Your task to perform on an android device: choose inbox layout in the gmail app Image 0: 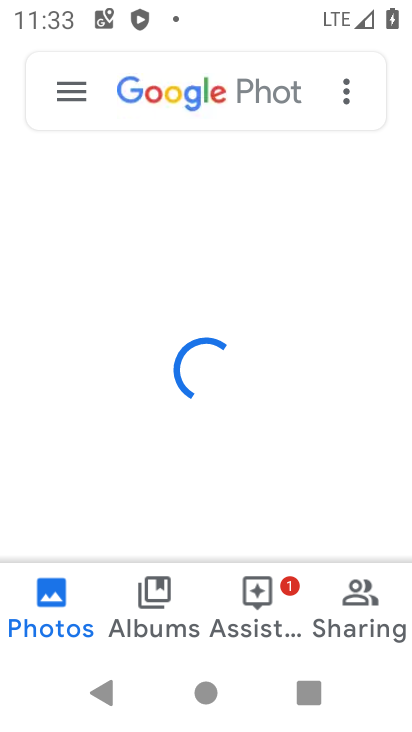
Step 0: press home button
Your task to perform on an android device: choose inbox layout in the gmail app Image 1: 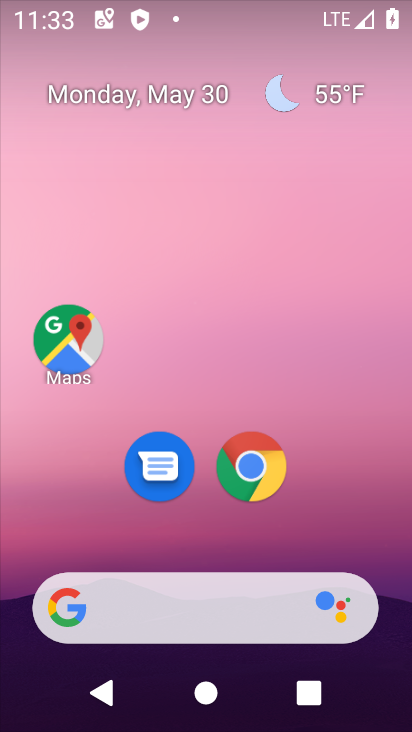
Step 1: drag from (350, 543) to (334, 194)
Your task to perform on an android device: choose inbox layout in the gmail app Image 2: 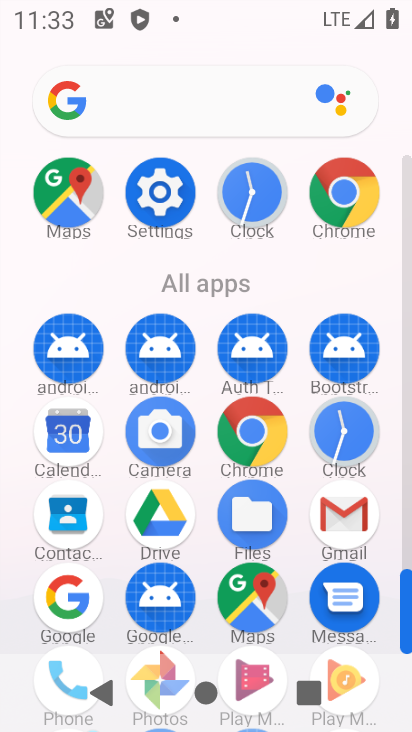
Step 2: click (352, 516)
Your task to perform on an android device: choose inbox layout in the gmail app Image 3: 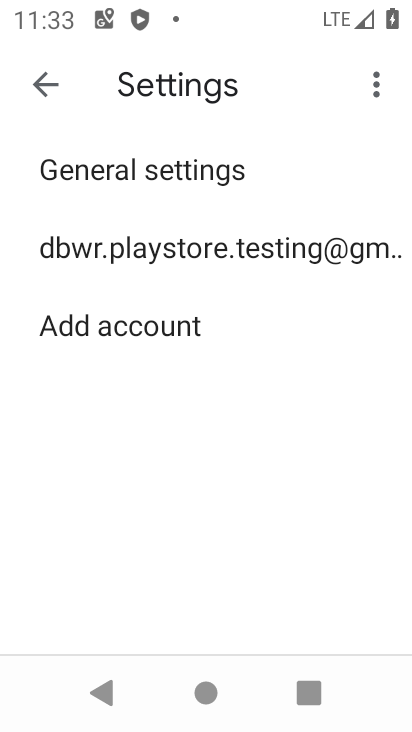
Step 3: click (95, 254)
Your task to perform on an android device: choose inbox layout in the gmail app Image 4: 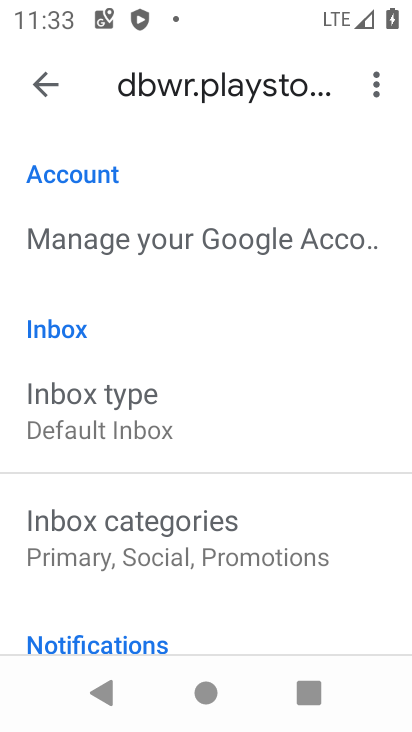
Step 4: drag from (191, 529) to (172, 437)
Your task to perform on an android device: choose inbox layout in the gmail app Image 5: 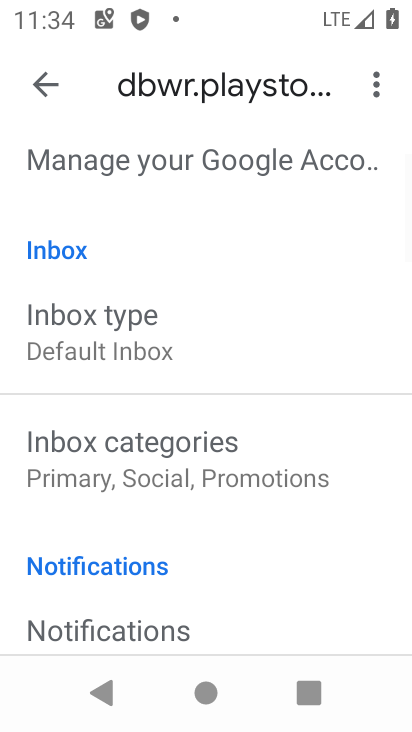
Step 5: click (153, 378)
Your task to perform on an android device: choose inbox layout in the gmail app Image 6: 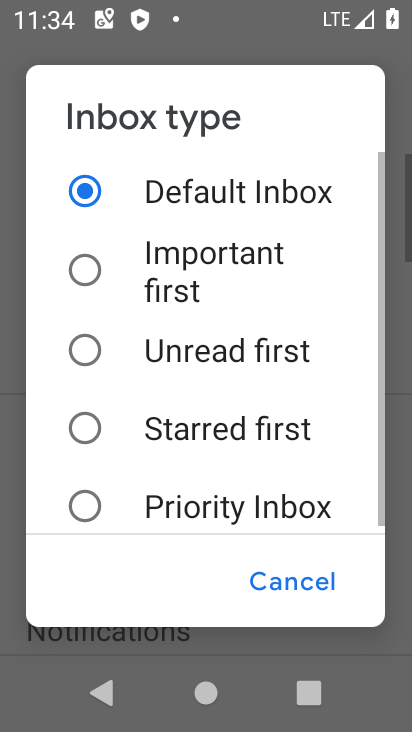
Step 6: click (156, 356)
Your task to perform on an android device: choose inbox layout in the gmail app Image 7: 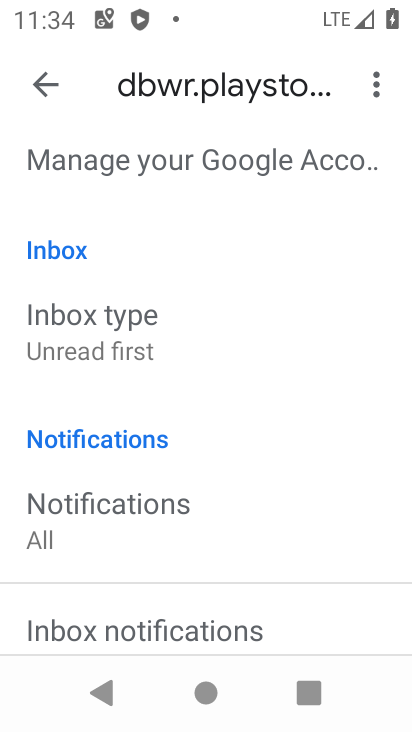
Step 7: task complete